Your task to perform on an android device: Open Reddit.com Image 0: 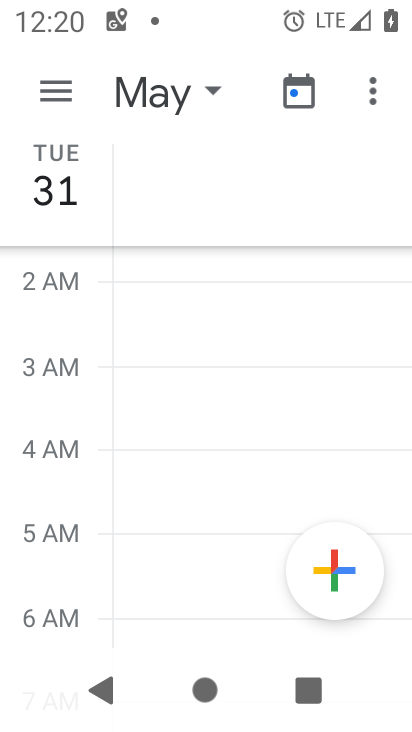
Step 0: drag from (242, 496) to (347, 134)
Your task to perform on an android device: Open Reddit.com Image 1: 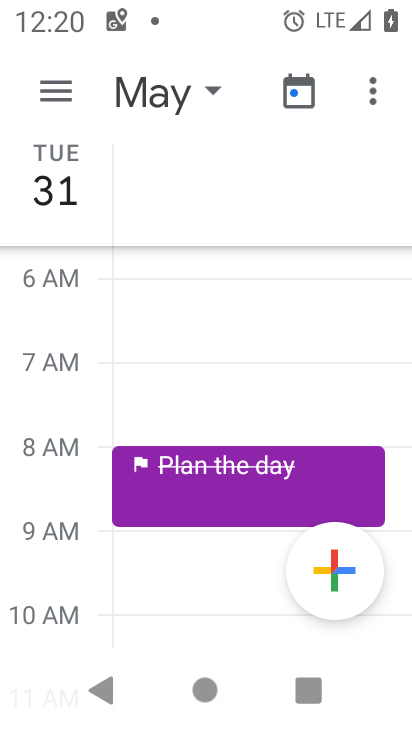
Step 1: drag from (237, 476) to (264, 243)
Your task to perform on an android device: Open Reddit.com Image 2: 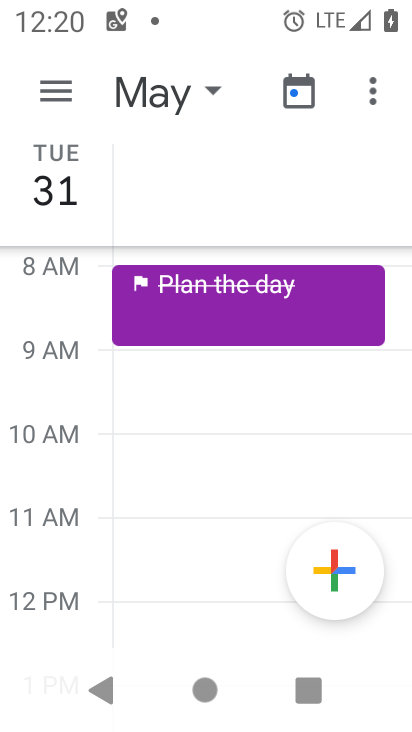
Step 2: press home button
Your task to perform on an android device: Open Reddit.com Image 3: 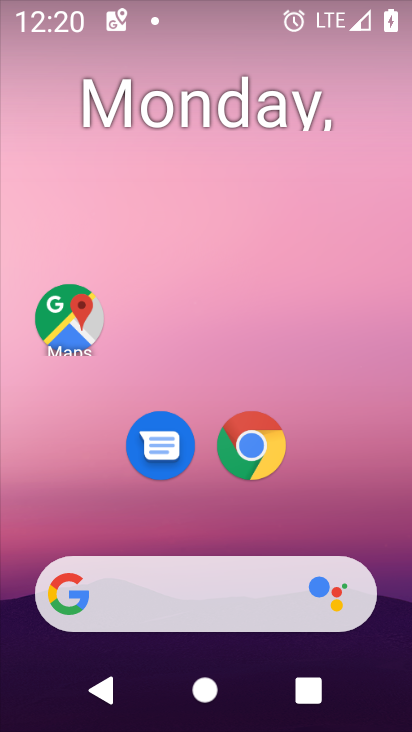
Step 3: drag from (214, 512) to (225, 111)
Your task to perform on an android device: Open Reddit.com Image 4: 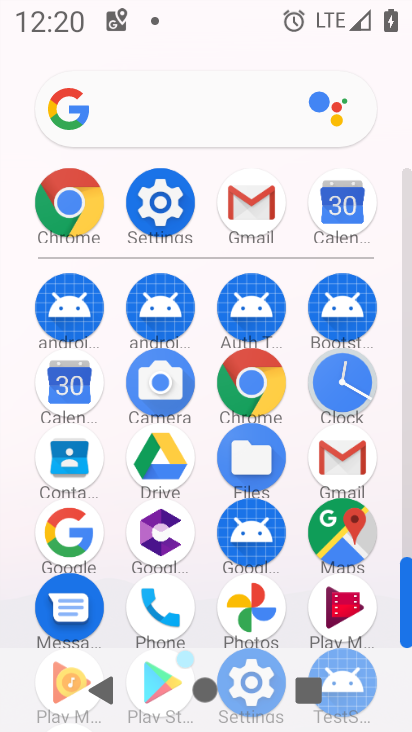
Step 4: click (181, 110)
Your task to perform on an android device: Open Reddit.com Image 5: 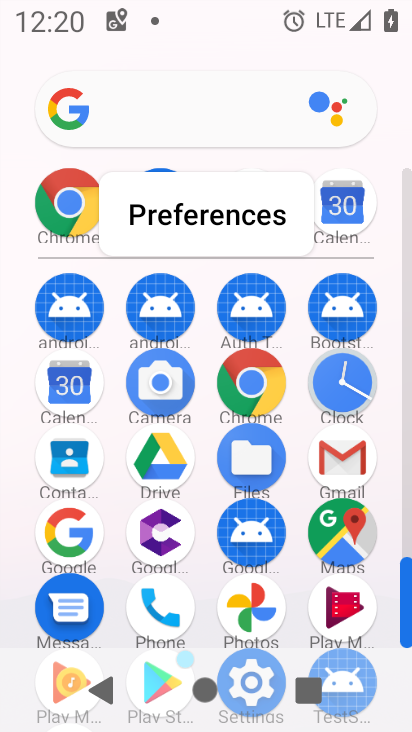
Step 5: click (174, 104)
Your task to perform on an android device: Open Reddit.com Image 6: 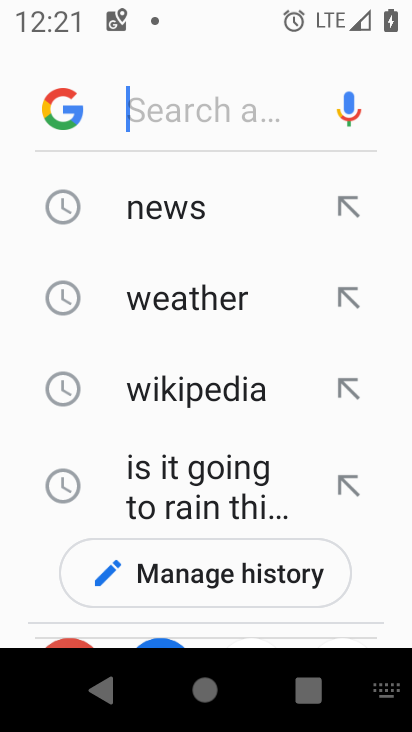
Step 6: type " Reddit.com"
Your task to perform on an android device: Open Reddit.com Image 7: 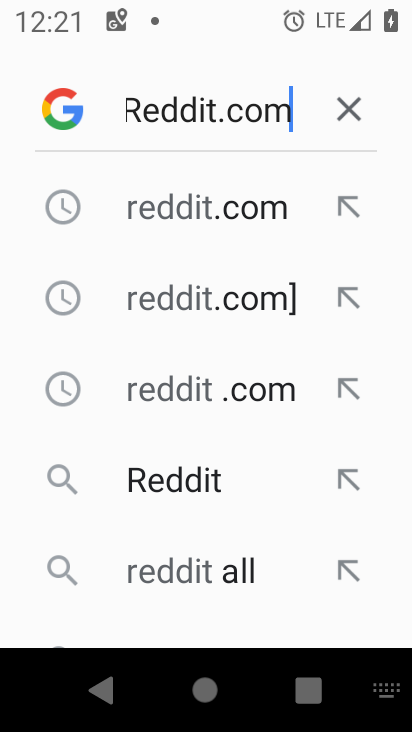
Step 7: type ""
Your task to perform on an android device: Open Reddit.com Image 8: 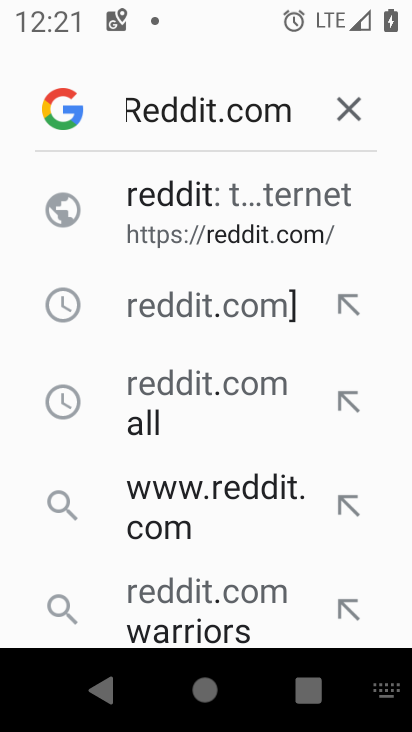
Step 8: click (171, 215)
Your task to perform on an android device: Open Reddit.com Image 9: 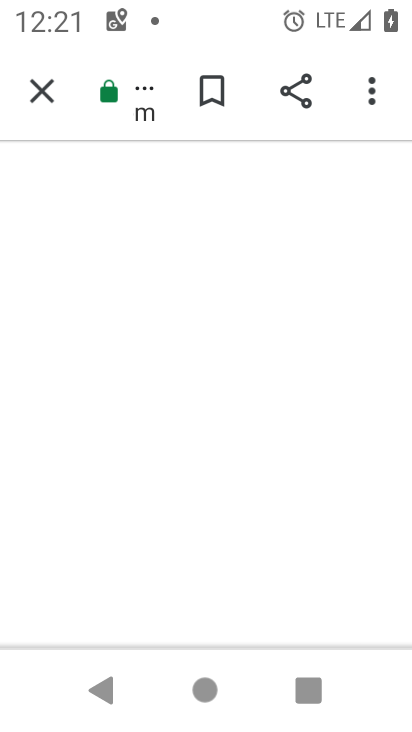
Step 9: task complete